Your task to perform on an android device: turn smart compose on in the gmail app Image 0: 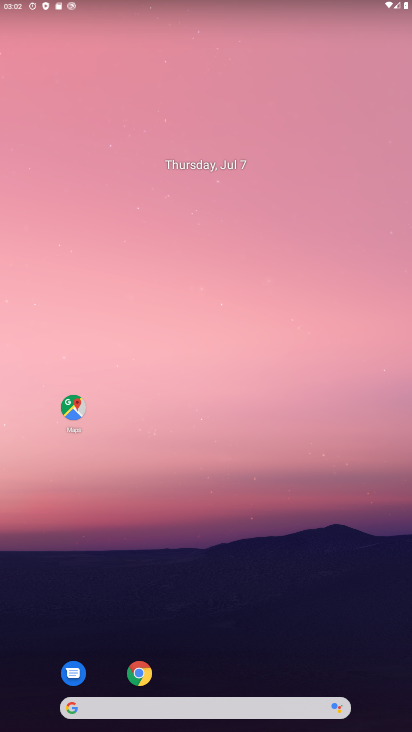
Step 0: drag from (215, 651) to (227, 247)
Your task to perform on an android device: turn smart compose on in the gmail app Image 1: 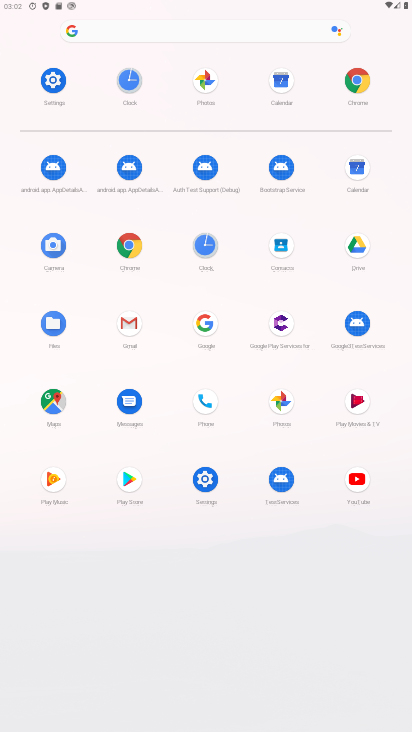
Step 1: click (144, 337)
Your task to perform on an android device: turn smart compose on in the gmail app Image 2: 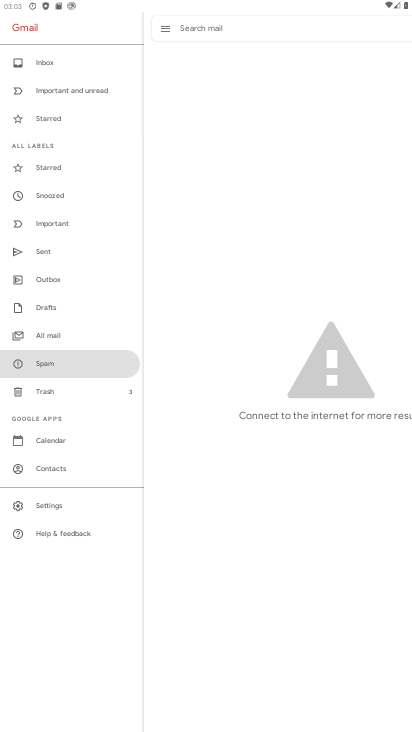
Step 2: click (59, 504)
Your task to perform on an android device: turn smart compose on in the gmail app Image 3: 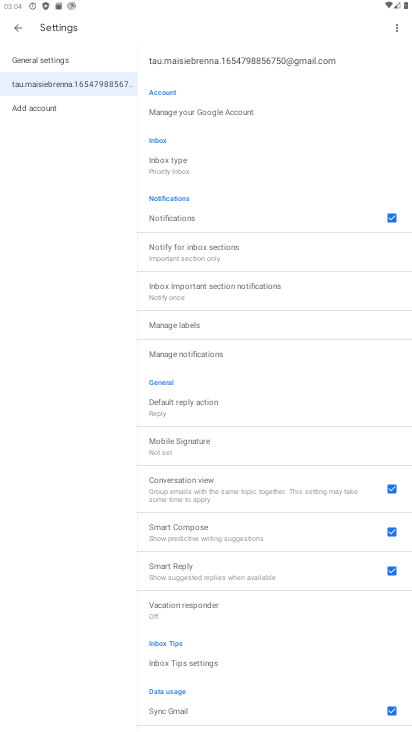
Step 3: task complete